Your task to perform on an android device: Open battery settings Image 0: 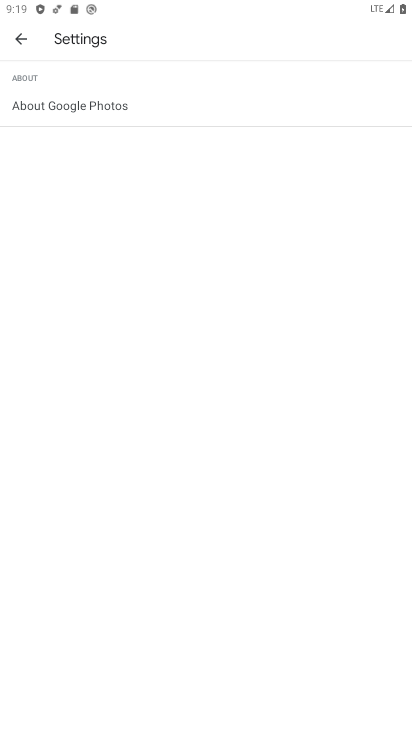
Step 0: press home button
Your task to perform on an android device: Open battery settings Image 1: 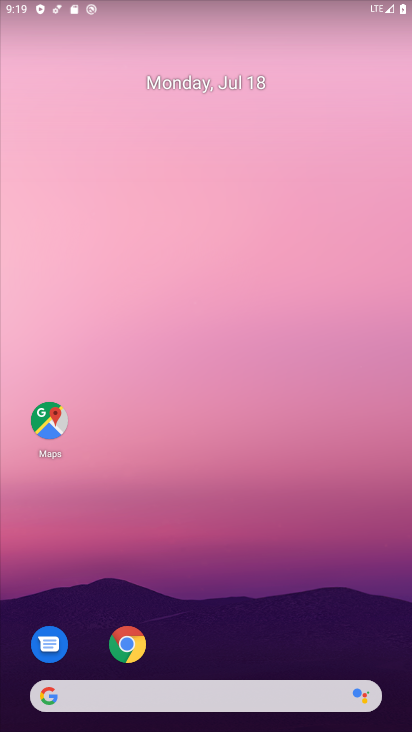
Step 1: drag from (333, 634) to (343, 272)
Your task to perform on an android device: Open battery settings Image 2: 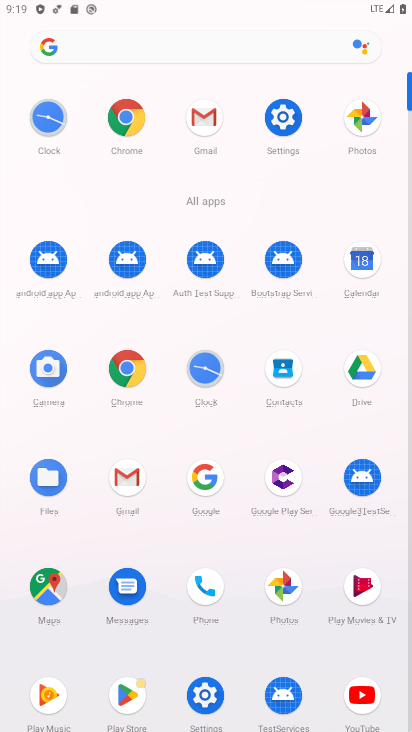
Step 2: click (294, 122)
Your task to perform on an android device: Open battery settings Image 3: 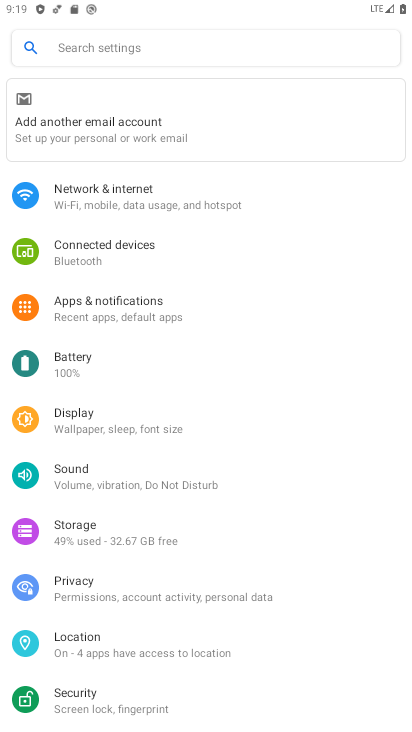
Step 3: drag from (337, 518) to (336, 421)
Your task to perform on an android device: Open battery settings Image 4: 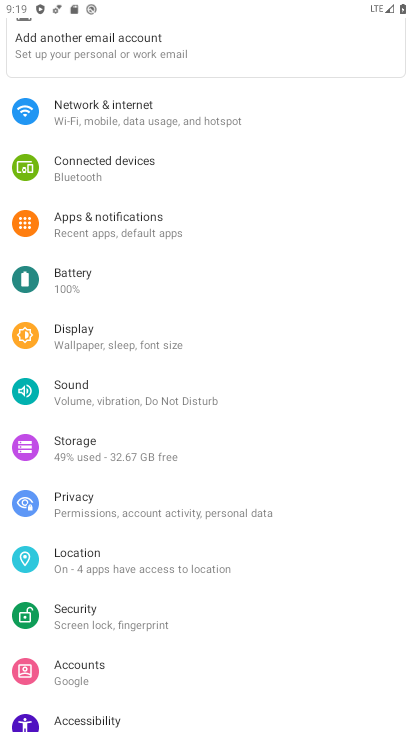
Step 4: drag from (319, 588) to (313, 457)
Your task to perform on an android device: Open battery settings Image 5: 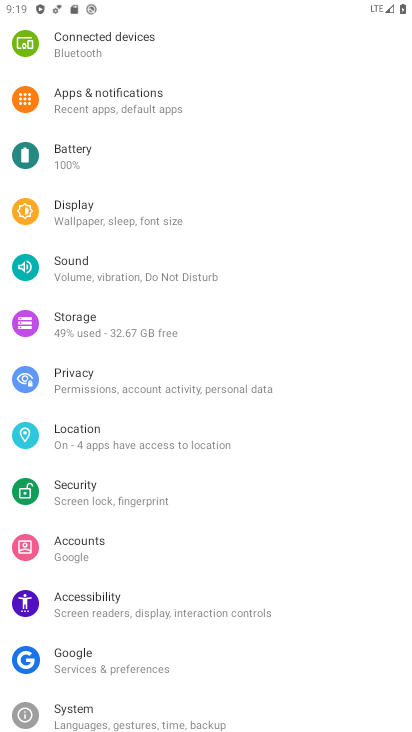
Step 5: drag from (317, 590) to (318, 515)
Your task to perform on an android device: Open battery settings Image 6: 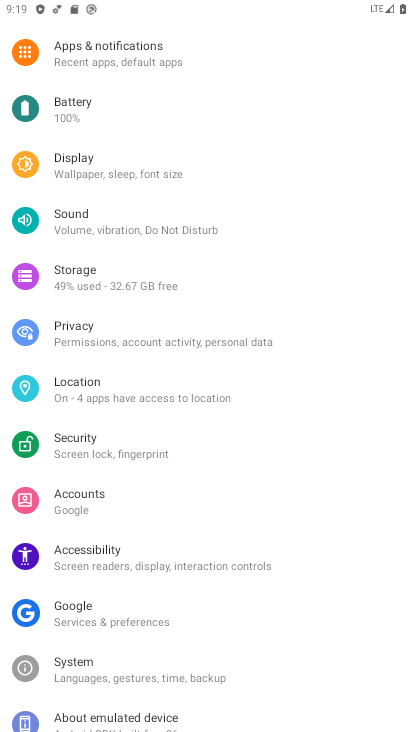
Step 6: drag from (314, 389) to (321, 503)
Your task to perform on an android device: Open battery settings Image 7: 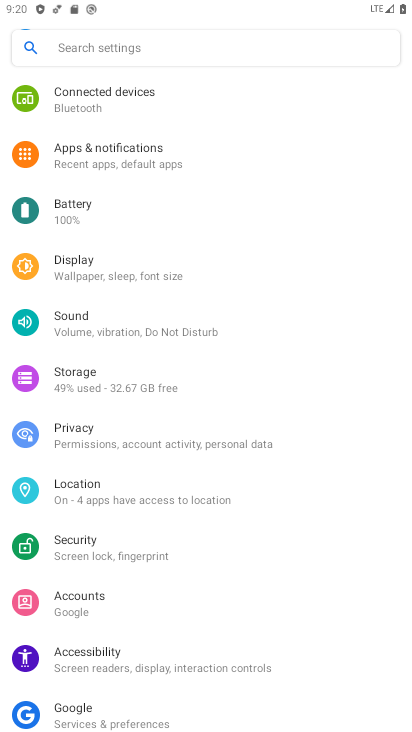
Step 7: drag from (318, 324) to (328, 439)
Your task to perform on an android device: Open battery settings Image 8: 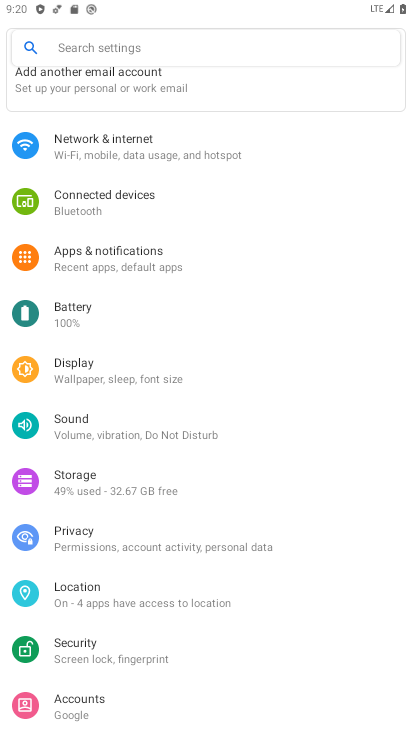
Step 8: click (125, 315)
Your task to perform on an android device: Open battery settings Image 9: 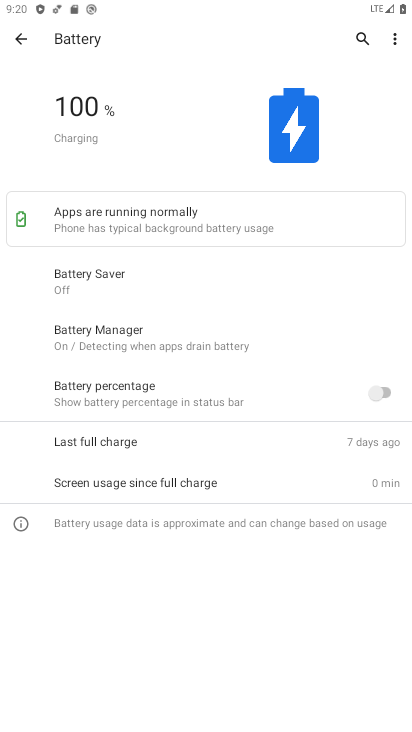
Step 9: task complete